Your task to perform on an android device: Go to Reddit.com Image 0: 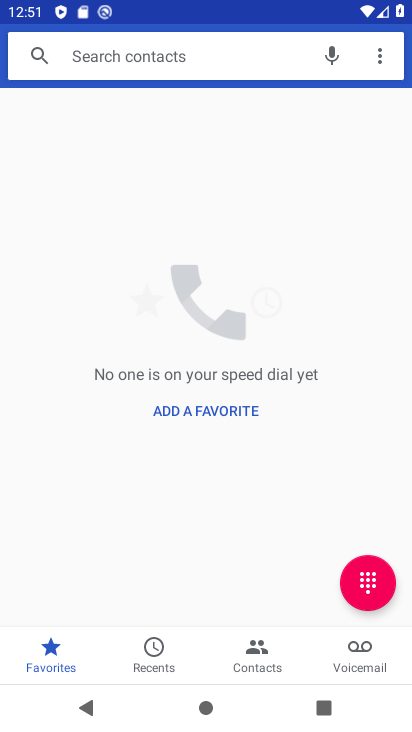
Step 0: press home button
Your task to perform on an android device: Go to Reddit.com Image 1: 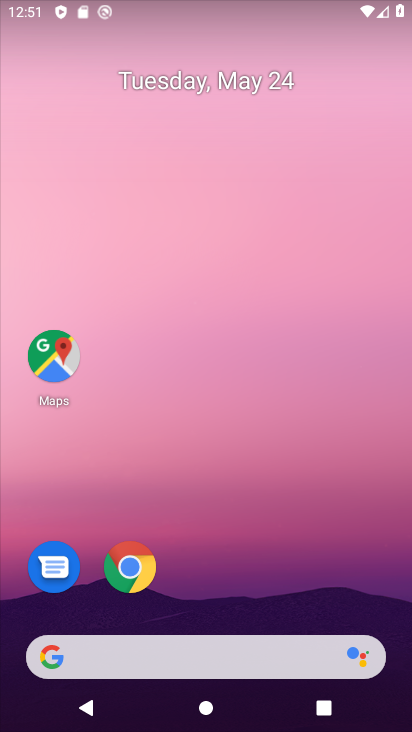
Step 1: click (127, 579)
Your task to perform on an android device: Go to Reddit.com Image 2: 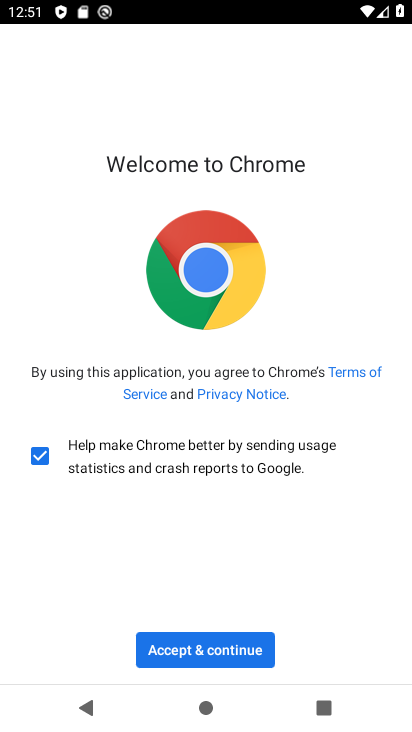
Step 2: click (209, 653)
Your task to perform on an android device: Go to Reddit.com Image 3: 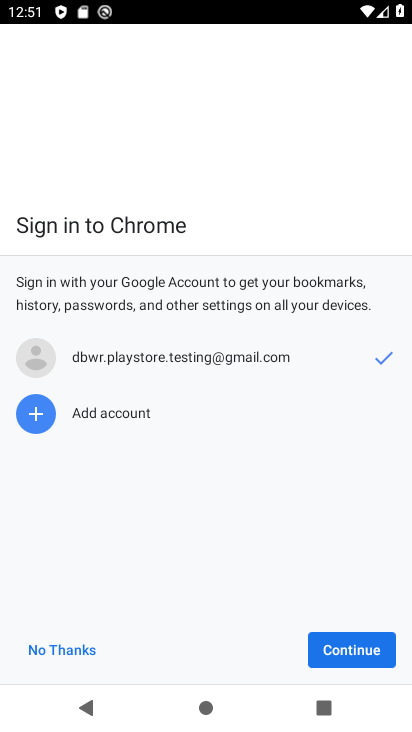
Step 3: click (360, 655)
Your task to perform on an android device: Go to Reddit.com Image 4: 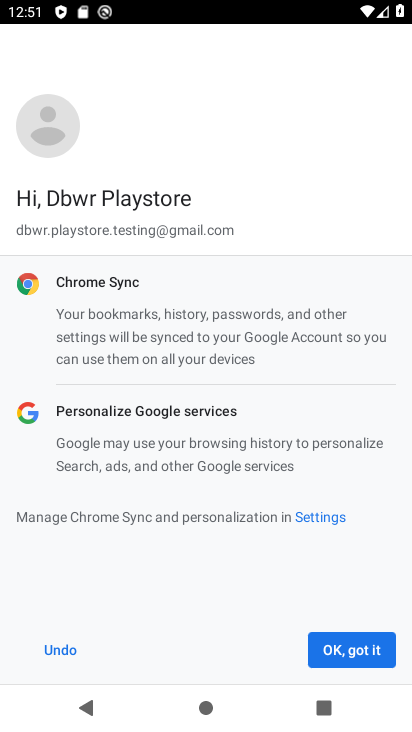
Step 4: click (345, 652)
Your task to perform on an android device: Go to Reddit.com Image 5: 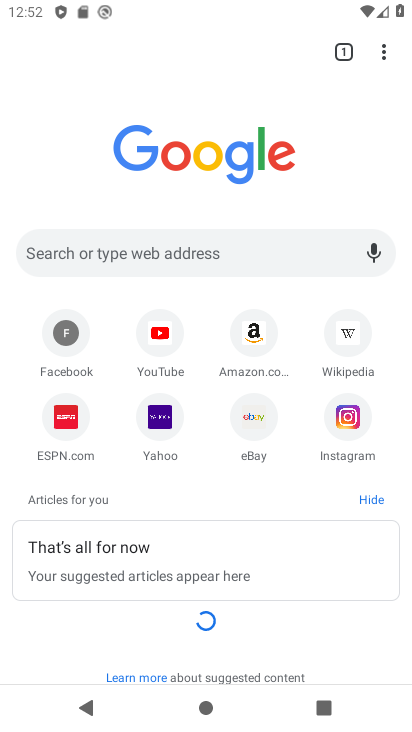
Step 5: click (242, 249)
Your task to perform on an android device: Go to Reddit.com Image 6: 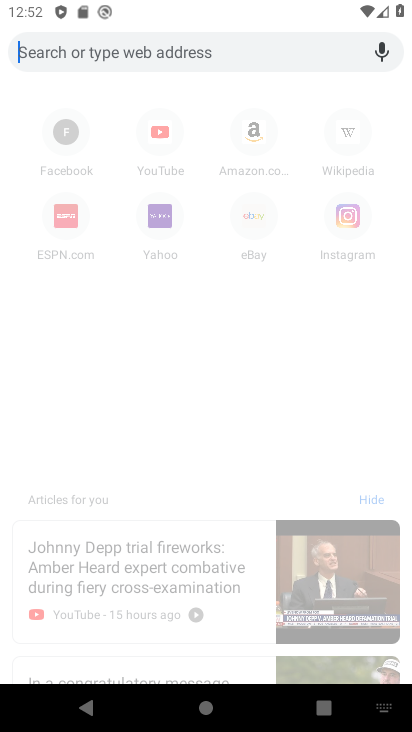
Step 6: type "Reddit.com"
Your task to perform on an android device: Go to Reddit.com Image 7: 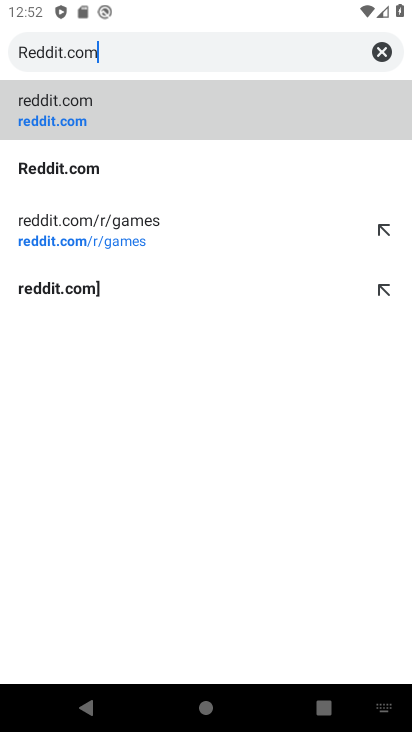
Step 7: click (73, 112)
Your task to perform on an android device: Go to Reddit.com Image 8: 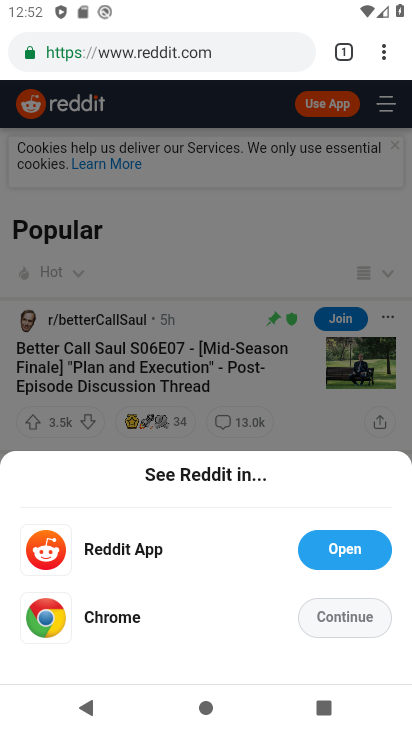
Step 8: task complete